Your task to perform on an android device: change the clock style Image 0: 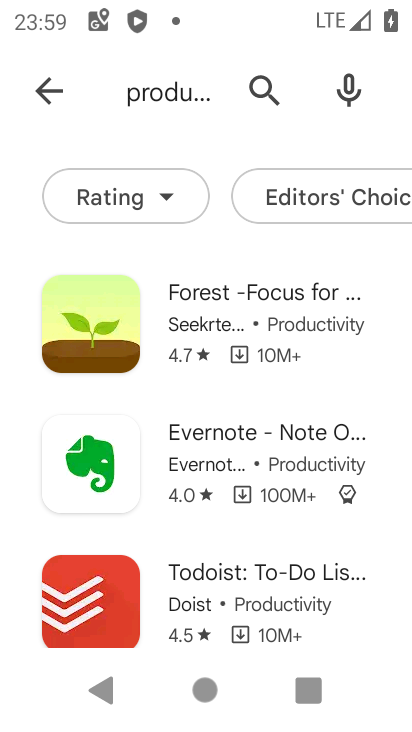
Step 0: press home button
Your task to perform on an android device: change the clock style Image 1: 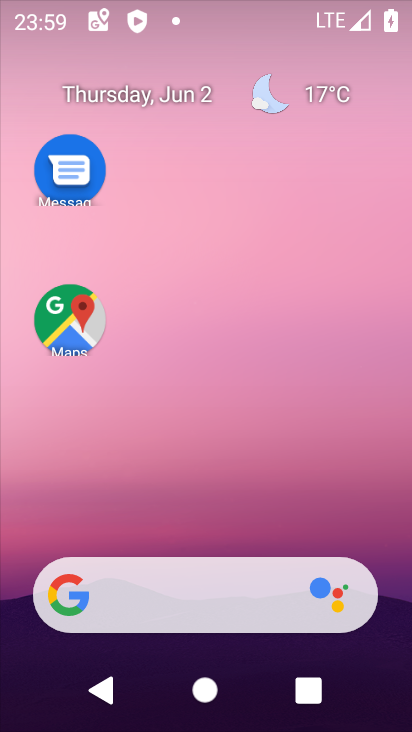
Step 1: drag from (351, 456) to (289, 2)
Your task to perform on an android device: change the clock style Image 2: 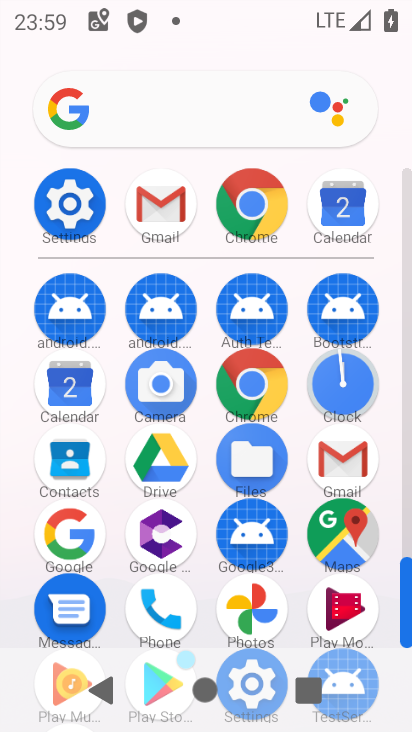
Step 2: click (319, 360)
Your task to perform on an android device: change the clock style Image 3: 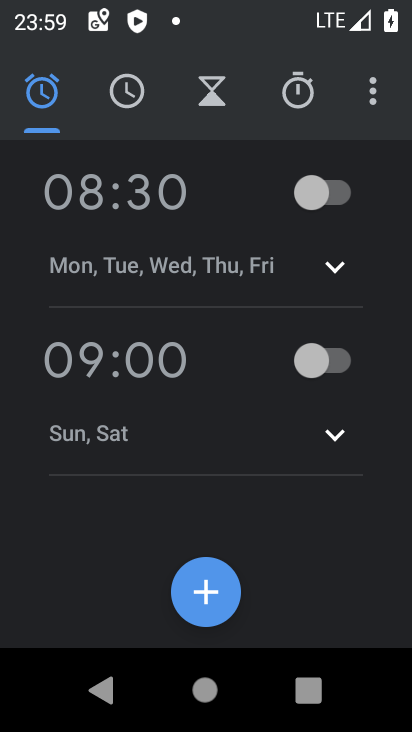
Step 3: click (364, 96)
Your task to perform on an android device: change the clock style Image 4: 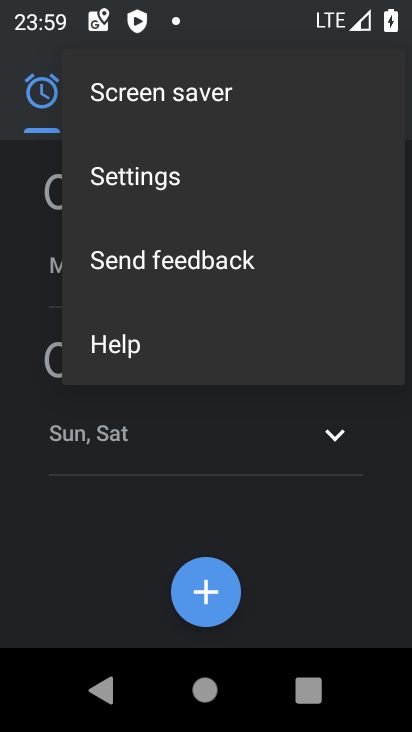
Step 4: click (179, 192)
Your task to perform on an android device: change the clock style Image 5: 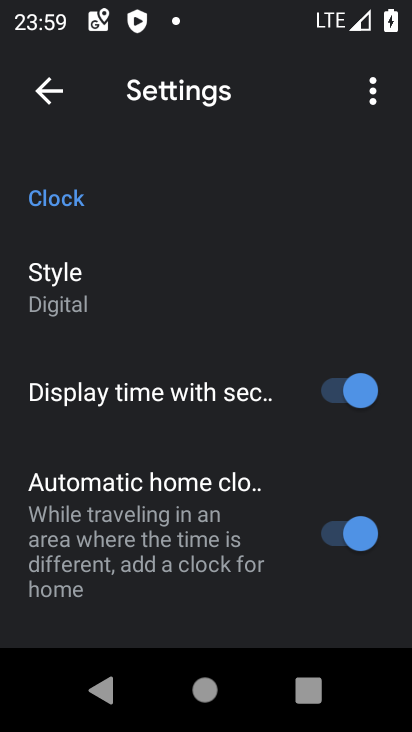
Step 5: click (94, 310)
Your task to perform on an android device: change the clock style Image 6: 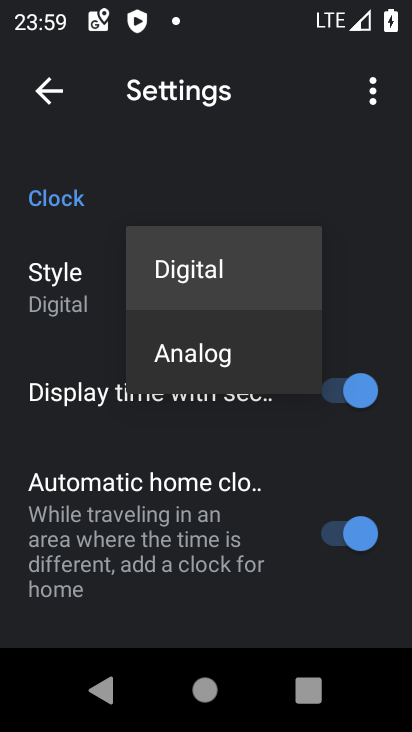
Step 6: click (171, 361)
Your task to perform on an android device: change the clock style Image 7: 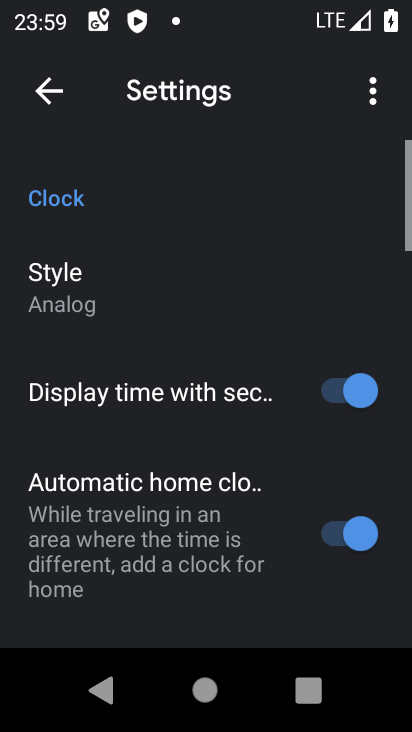
Step 7: task complete